Your task to perform on an android device: turn notification dots on Image 0: 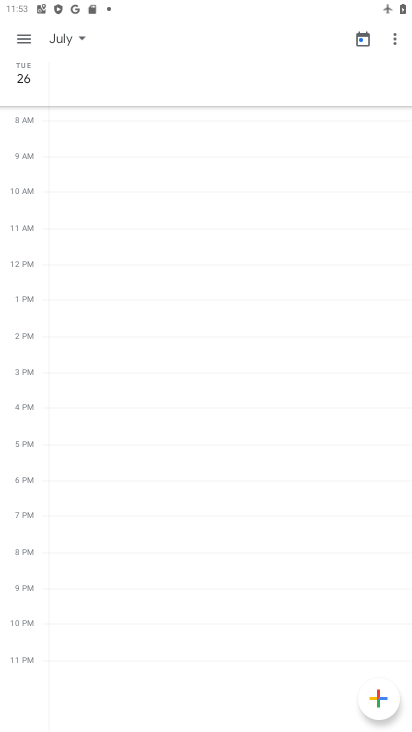
Step 0: press home button
Your task to perform on an android device: turn notification dots on Image 1: 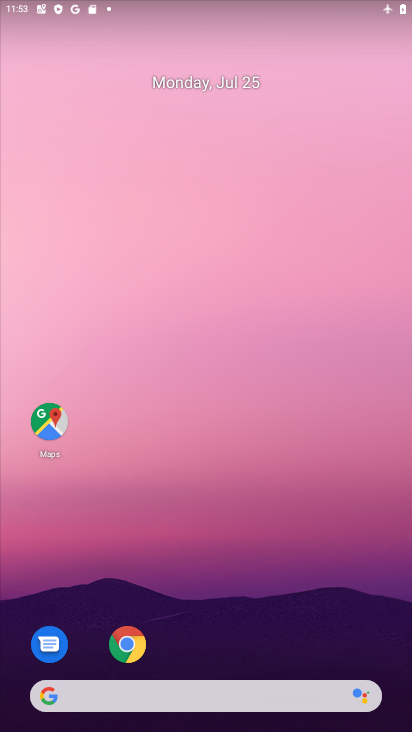
Step 1: drag from (222, 664) to (206, 47)
Your task to perform on an android device: turn notification dots on Image 2: 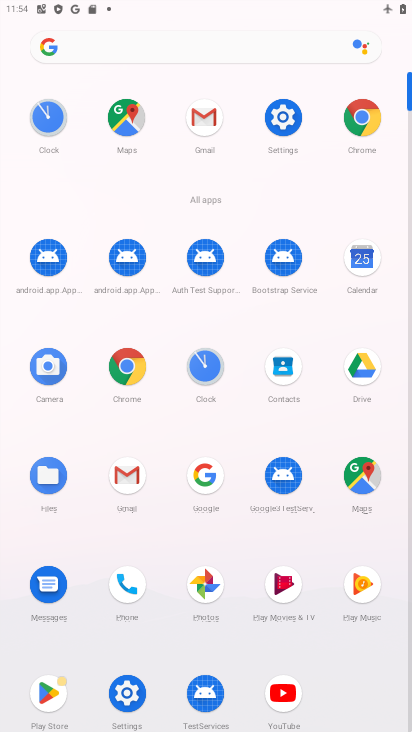
Step 2: click (279, 108)
Your task to perform on an android device: turn notification dots on Image 3: 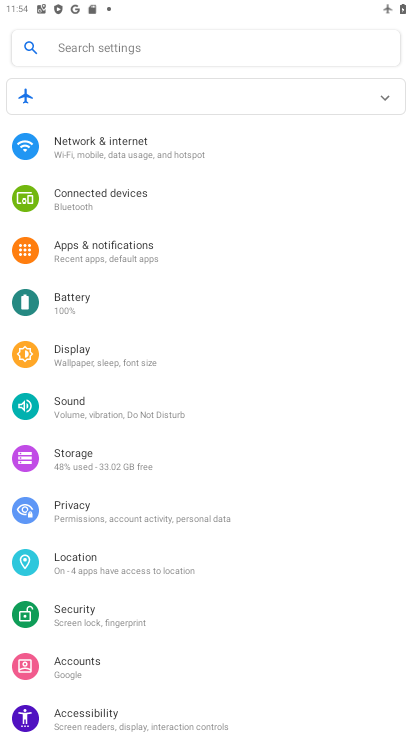
Step 3: click (110, 255)
Your task to perform on an android device: turn notification dots on Image 4: 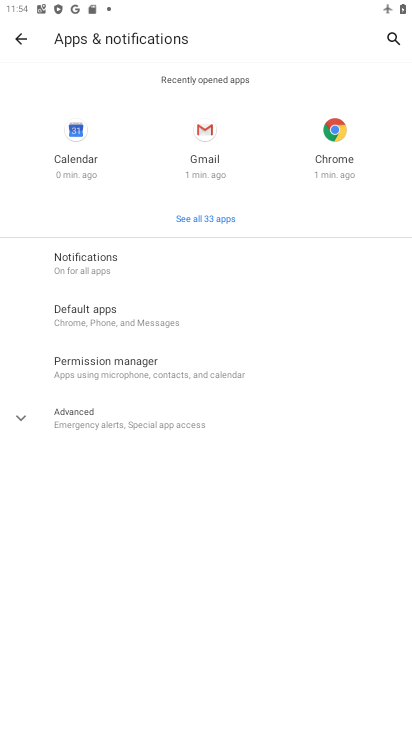
Step 4: click (85, 263)
Your task to perform on an android device: turn notification dots on Image 5: 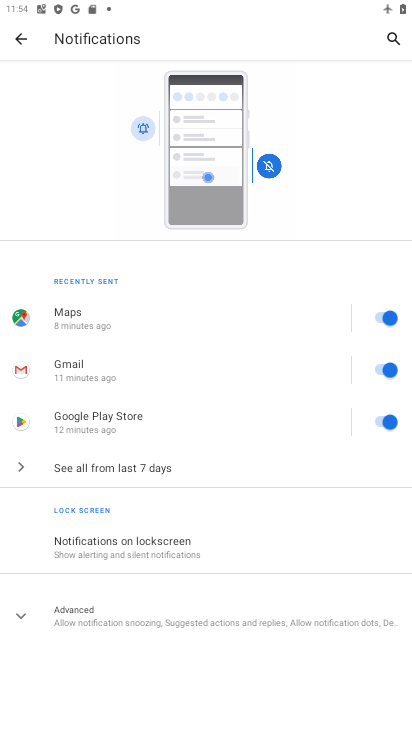
Step 5: drag from (126, 576) to (119, 266)
Your task to perform on an android device: turn notification dots on Image 6: 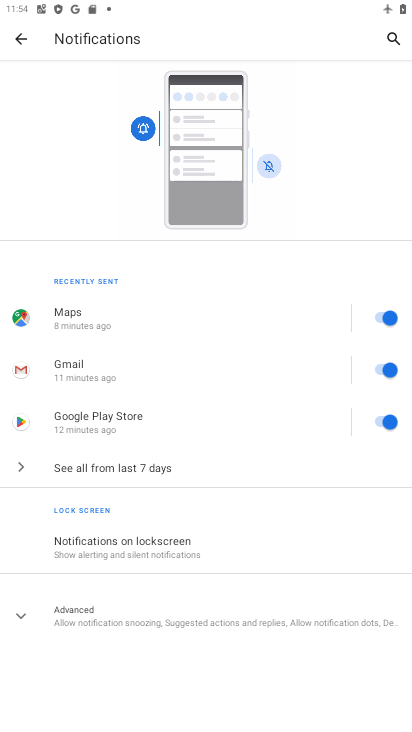
Step 6: click (31, 624)
Your task to perform on an android device: turn notification dots on Image 7: 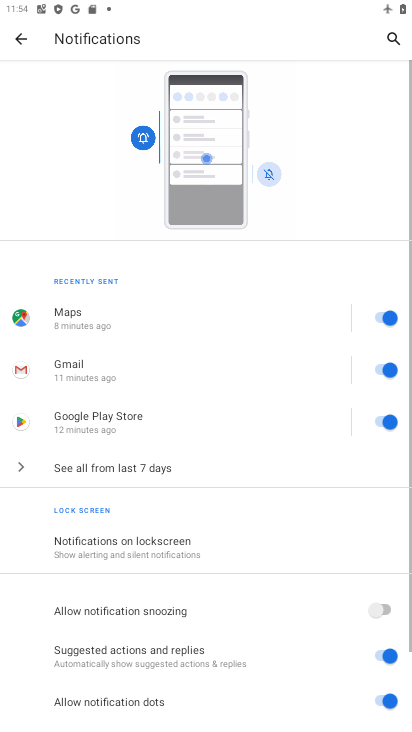
Step 7: task complete